Your task to perform on an android device: Open privacy settings Image 0: 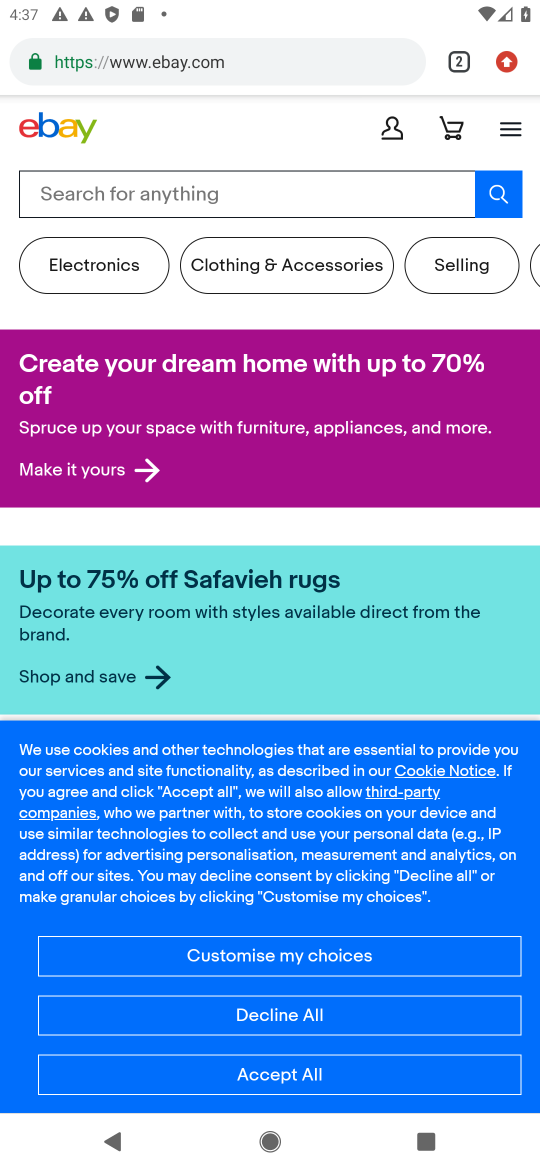
Step 0: press home button
Your task to perform on an android device: Open privacy settings Image 1: 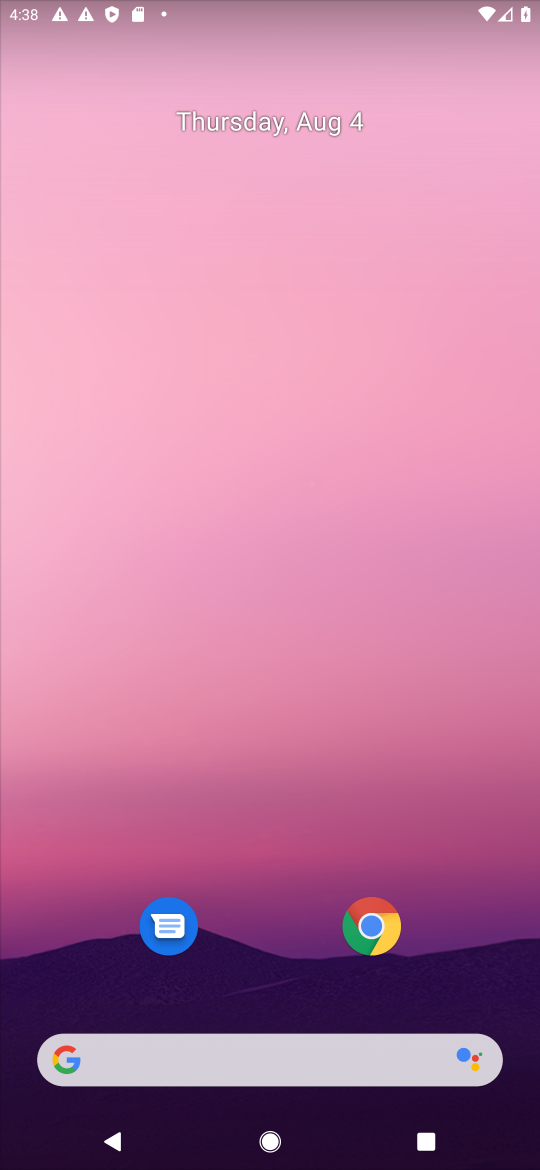
Step 1: drag from (279, 1018) to (396, 426)
Your task to perform on an android device: Open privacy settings Image 2: 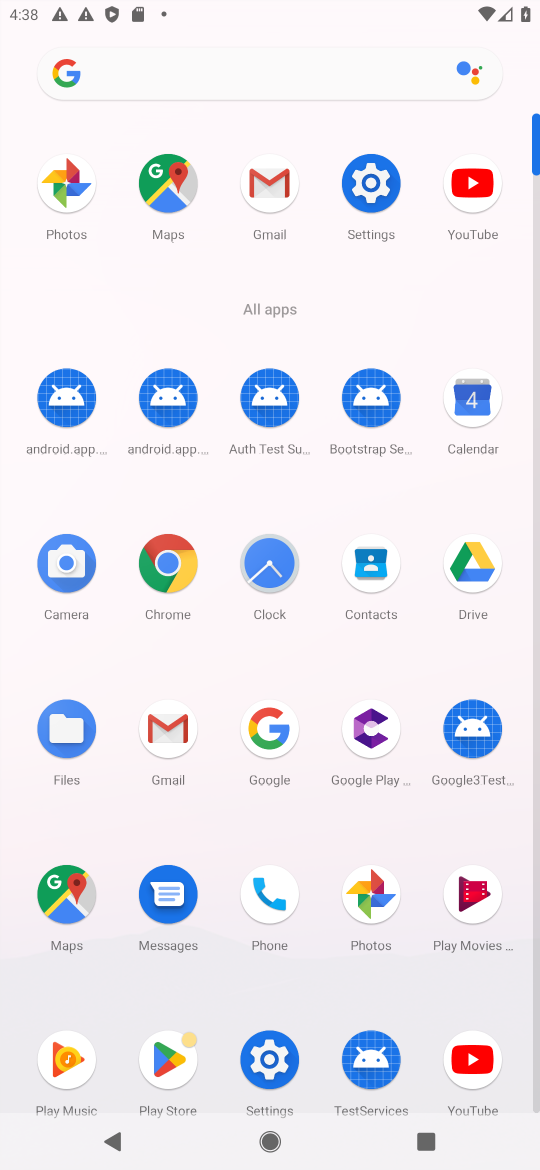
Step 2: click (358, 196)
Your task to perform on an android device: Open privacy settings Image 3: 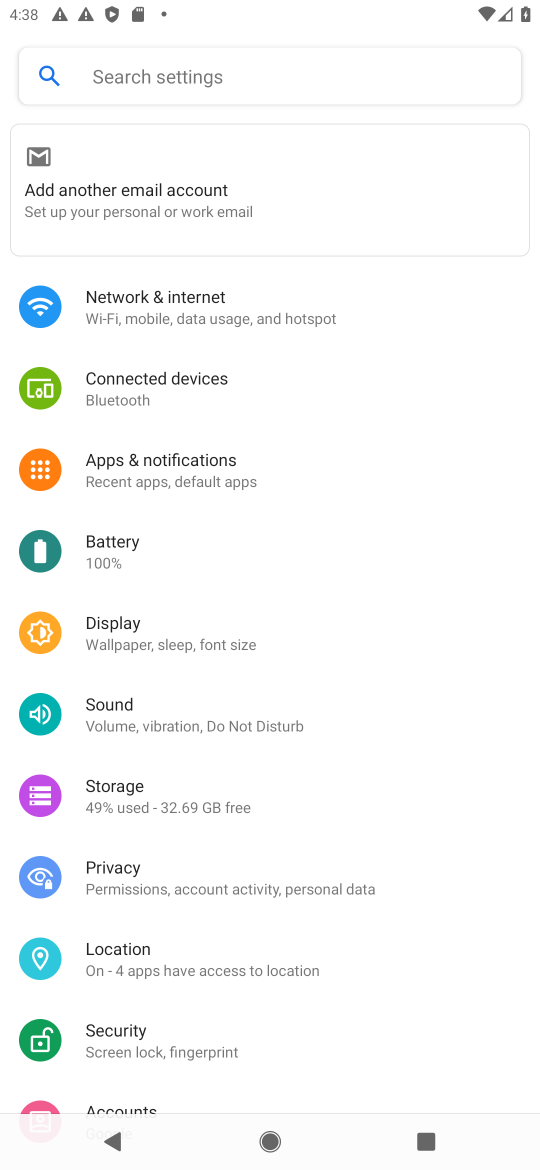
Step 3: click (121, 877)
Your task to perform on an android device: Open privacy settings Image 4: 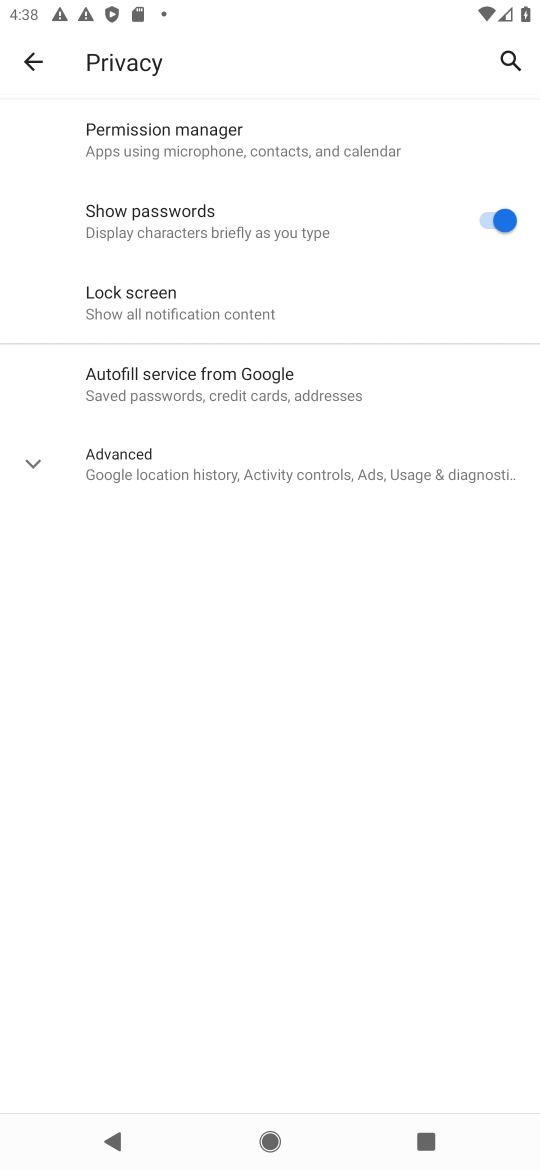
Step 4: task complete